Your task to perform on an android device: allow cookies in the chrome app Image 0: 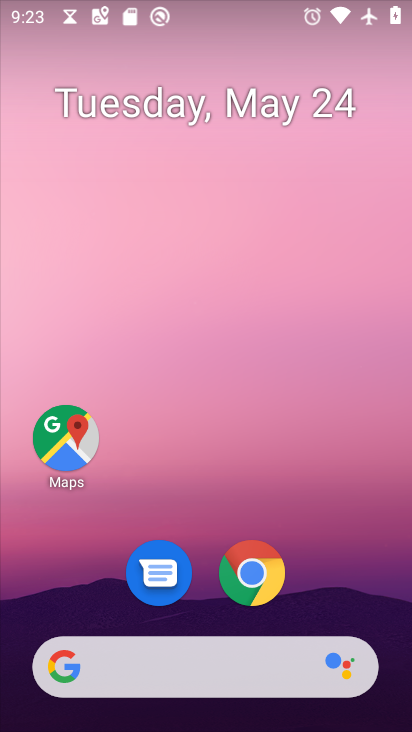
Step 0: drag from (365, 548) to (246, 2)
Your task to perform on an android device: allow cookies in the chrome app Image 1: 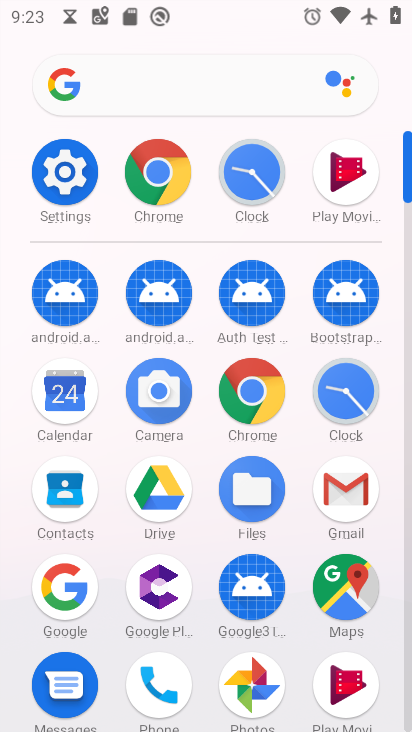
Step 1: click (172, 220)
Your task to perform on an android device: allow cookies in the chrome app Image 2: 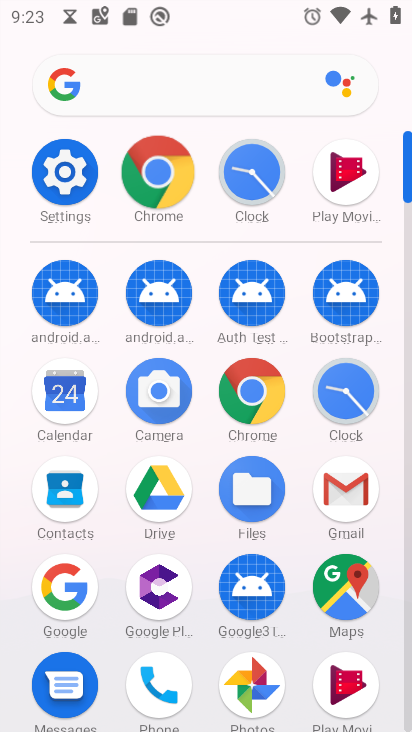
Step 2: click (153, 159)
Your task to perform on an android device: allow cookies in the chrome app Image 3: 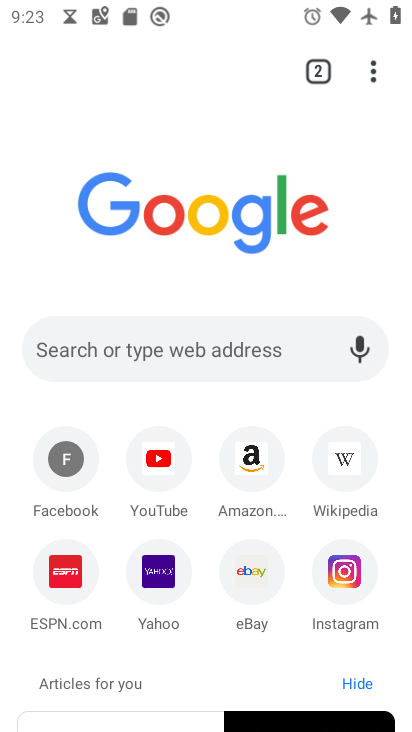
Step 3: drag from (369, 75) to (235, 614)
Your task to perform on an android device: allow cookies in the chrome app Image 4: 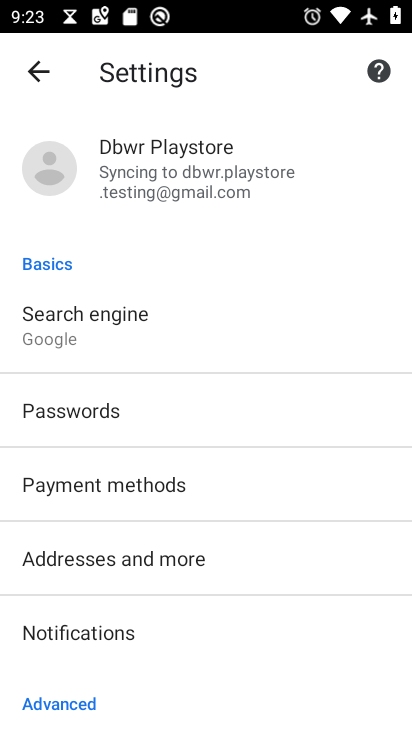
Step 4: drag from (210, 668) to (202, 209)
Your task to perform on an android device: allow cookies in the chrome app Image 5: 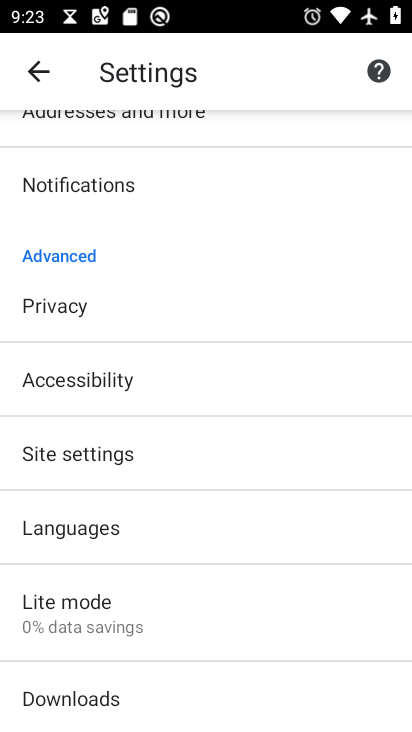
Step 5: click (130, 472)
Your task to perform on an android device: allow cookies in the chrome app Image 6: 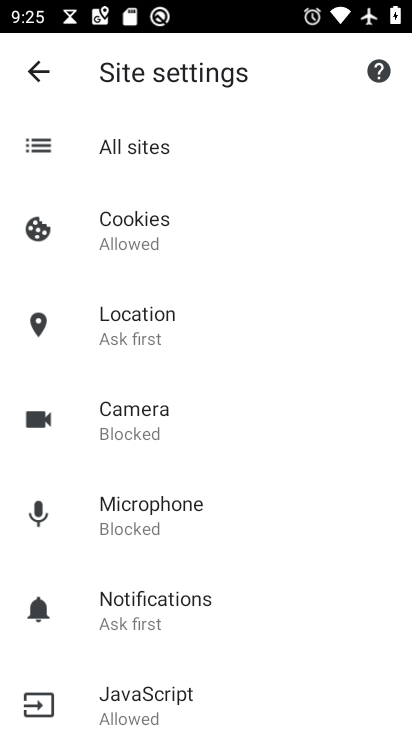
Step 6: drag from (238, 606) to (206, 121)
Your task to perform on an android device: allow cookies in the chrome app Image 7: 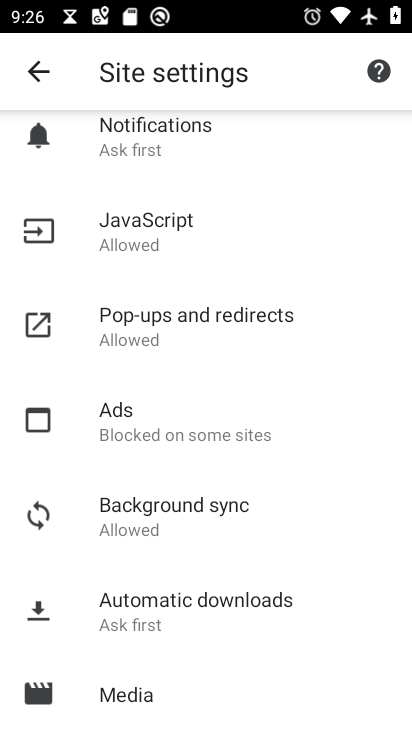
Step 7: drag from (214, 168) to (291, 723)
Your task to perform on an android device: allow cookies in the chrome app Image 8: 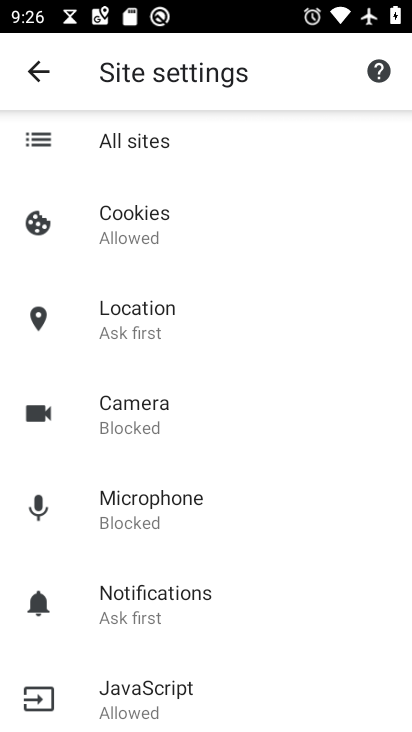
Step 8: click (152, 224)
Your task to perform on an android device: allow cookies in the chrome app Image 9: 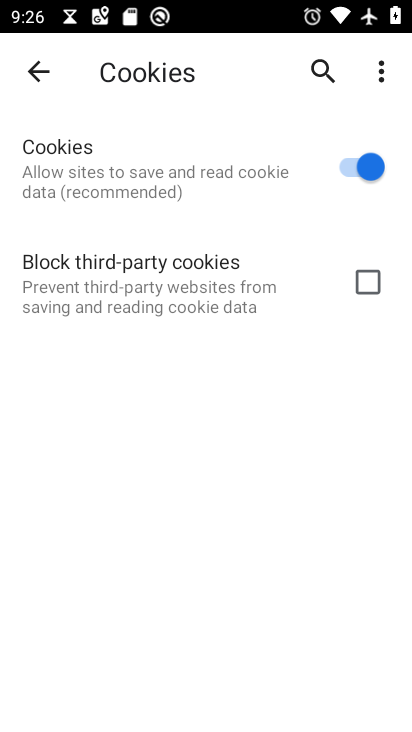
Step 9: task complete